Your task to perform on an android device: Open settings Image 0: 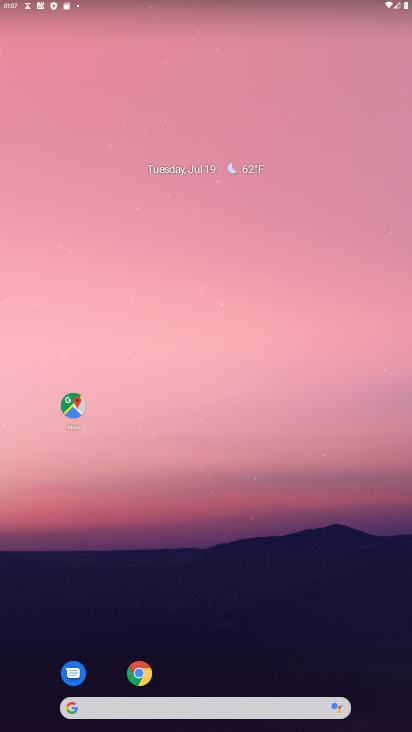
Step 0: drag from (224, 664) to (235, 415)
Your task to perform on an android device: Open settings Image 1: 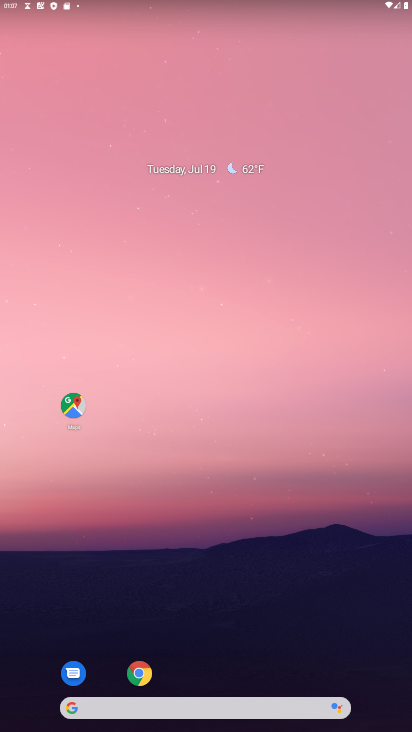
Step 1: drag from (254, 657) to (183, 194)
Your task to perform on an android device: Open settings Image 2: 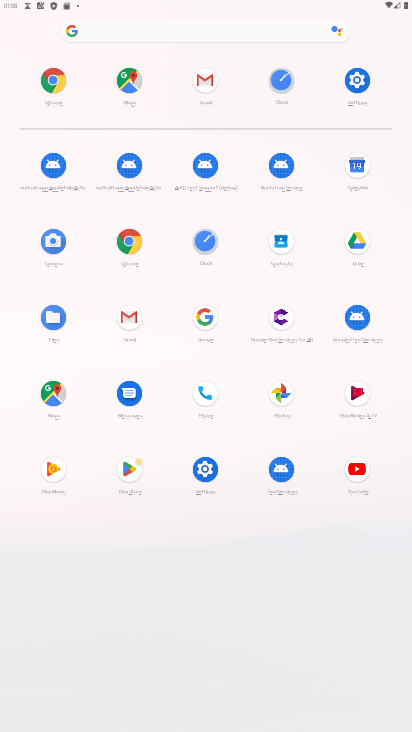
Step 2: click (364, 85)
Your task to perform on an android device: Open settings Image 3: 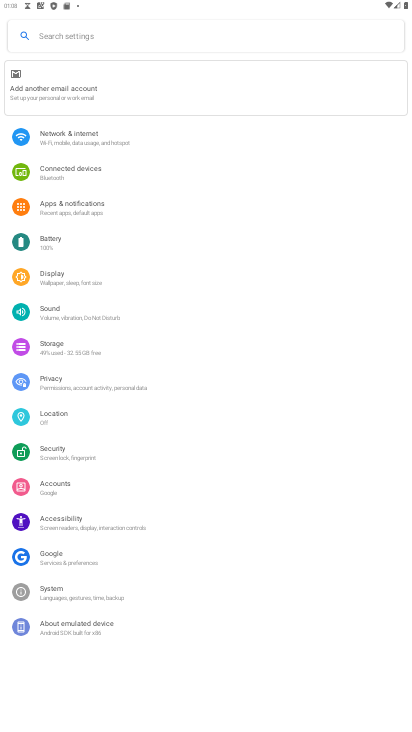
Step 3: click (364, 85)
Your task to perform on an android device: Open settings Image 4: 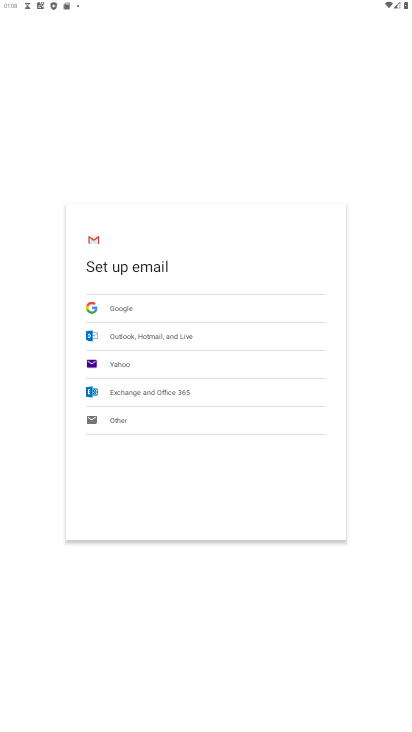
Step 4: task complete